Your task to perform on an android device: Show me recent news Image 0: 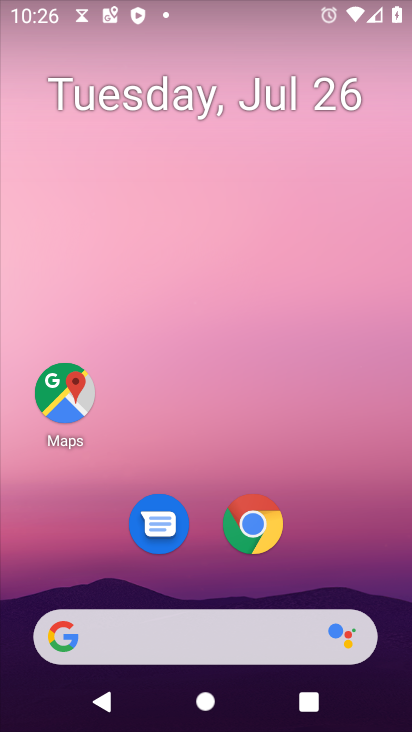
Step 0: click (154, 630)
Your task to perform on an android device: Show me recent news Image 1: 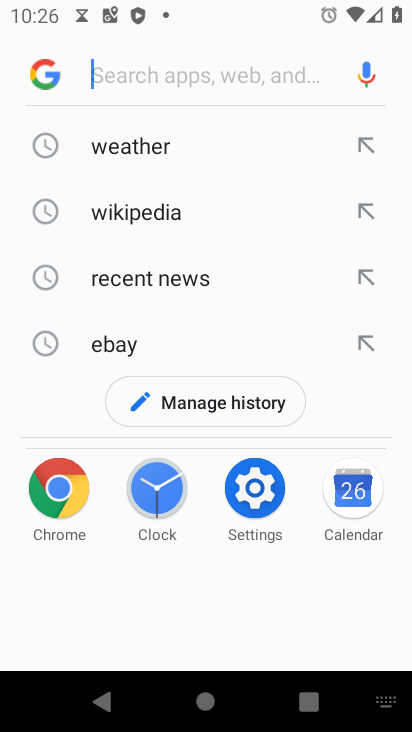
Step 1: click (154, 274)
Your task to perform on an android device: Show me recent news Image 2: 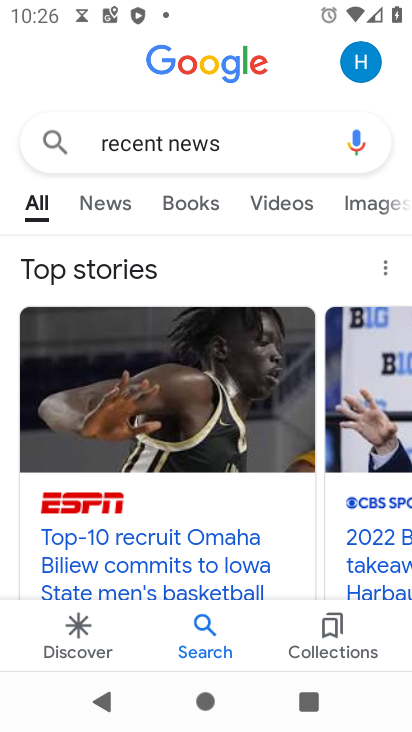
Step 2: click (121, 198)
Your task to perform on an android device: Show me recent news Image 3: 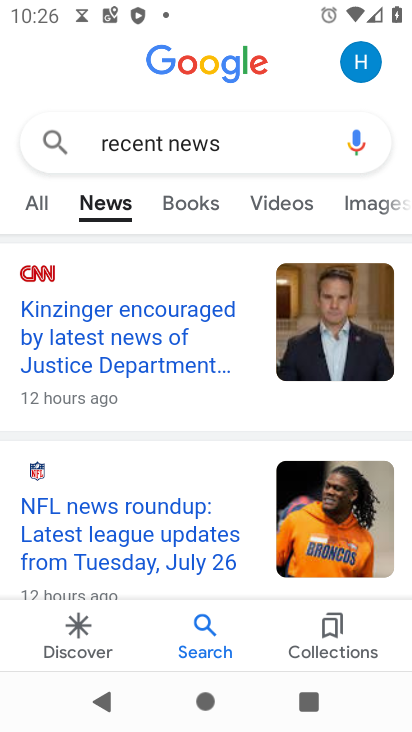
Step 3: task complete